Your task to perform on an android device: Open Google Maps Image 0: 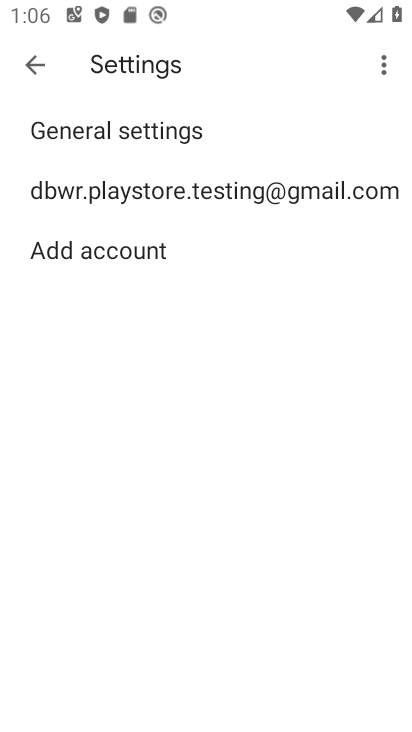
Step 0: press home button
Your task to perform on an android device: Open Google Maps Image 1: 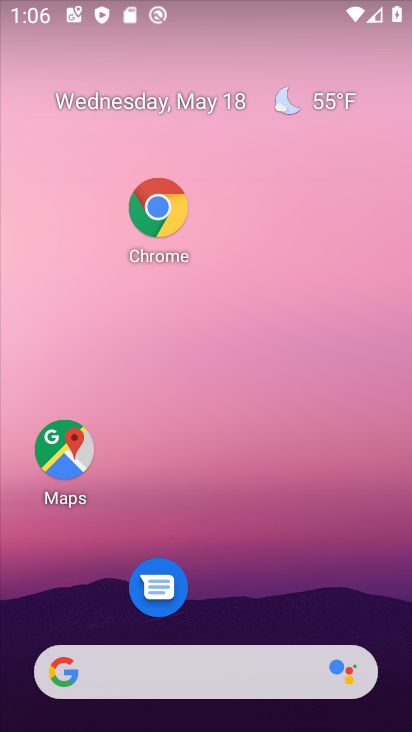
Step 1: click (81, 458)
Your task to perform on an android device: Open Google Maps Image 2: 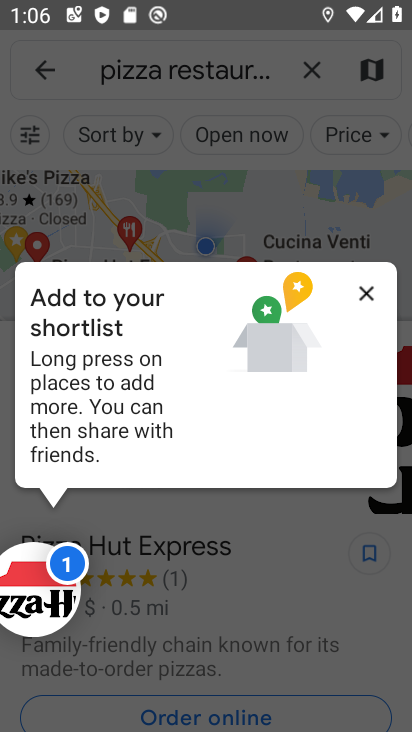
Step 2: click (364, 296)
Your task to perform on an android device: Open Google Maps Image 3: 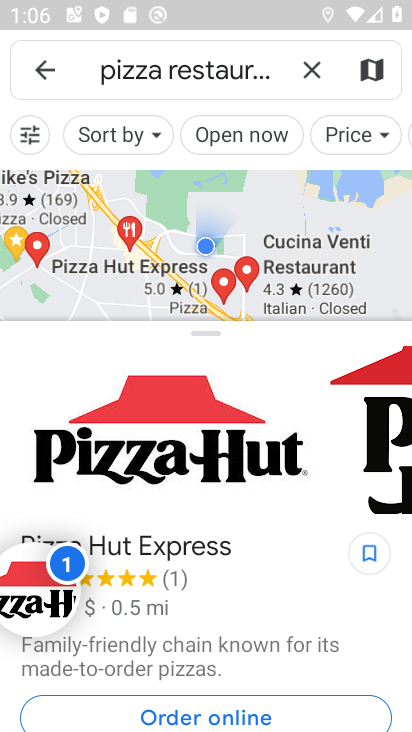
Step 3: task complete